Your task to perform on an android device: Go to sound settings Image 0: 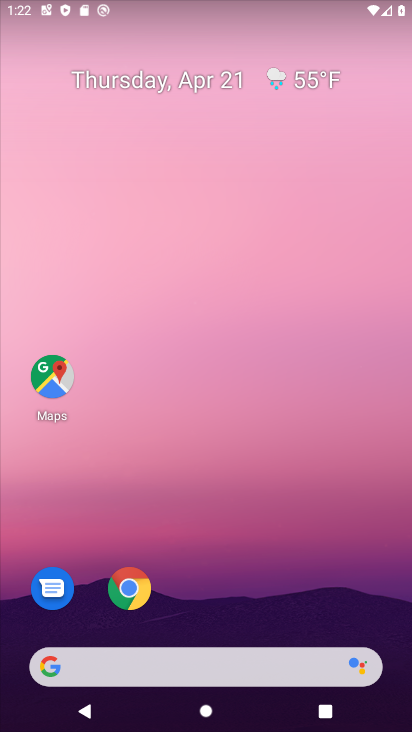
Step 0: drag from (197, 640) to (217, 141)
Your task to perform on an android device: Go to sound settings Image 1: 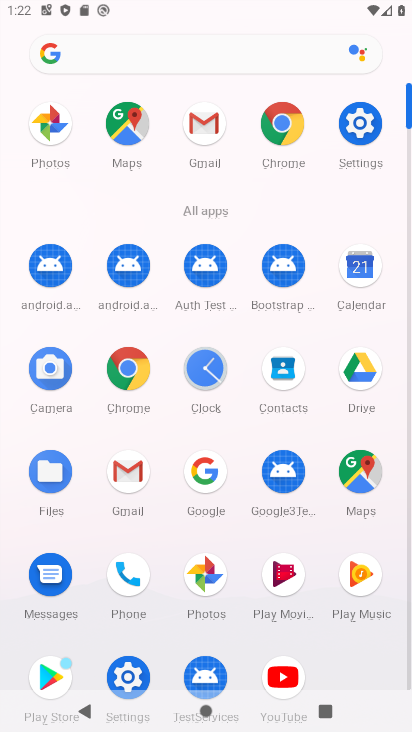
Step 1: click (134, 673)
Your task to perform on an android device: Go to sound settings Image 2: 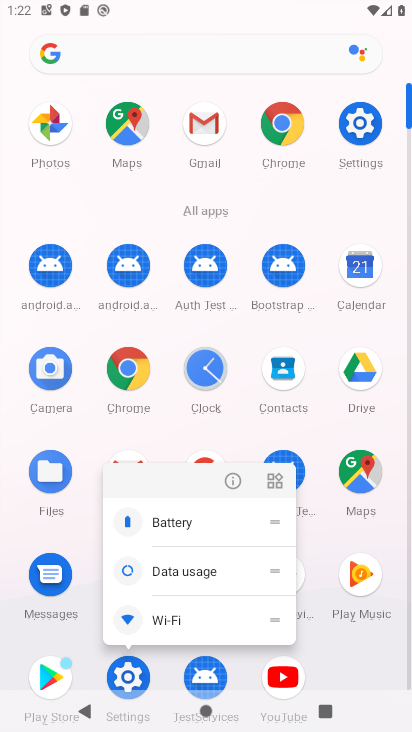
Step 2: click (130, 686)
Your task to perform on an android device: Go to sound settings Image 3: 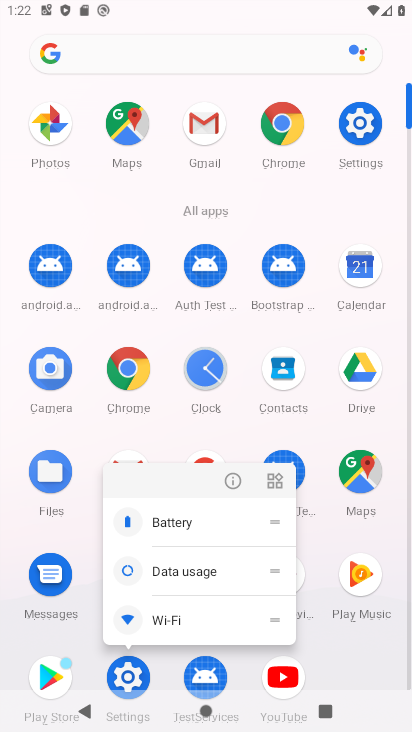
Step 3: click (125, 679)
Your task to perform on an android device: Go to sound settings Image 4: 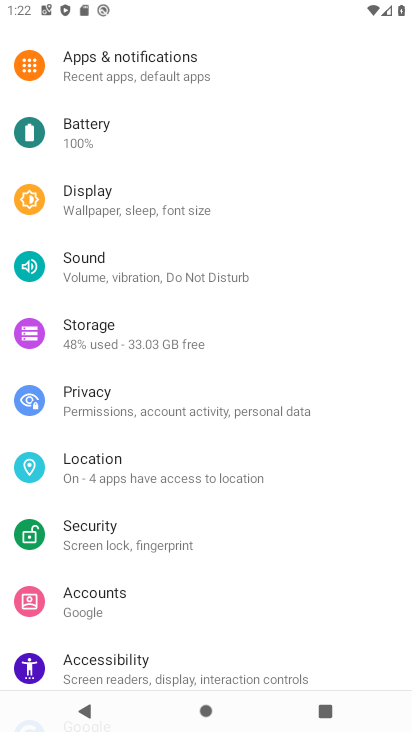
Step 4: click (174, 282)
Your task to perform on an android device: Go to sound settings Image 5: 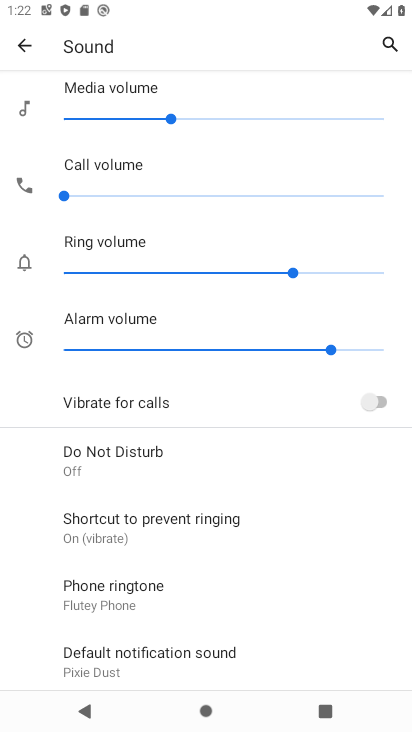
Step 5: task complete